Your task to perform on an android device: turn on the 12-hour format for clock Image 0: 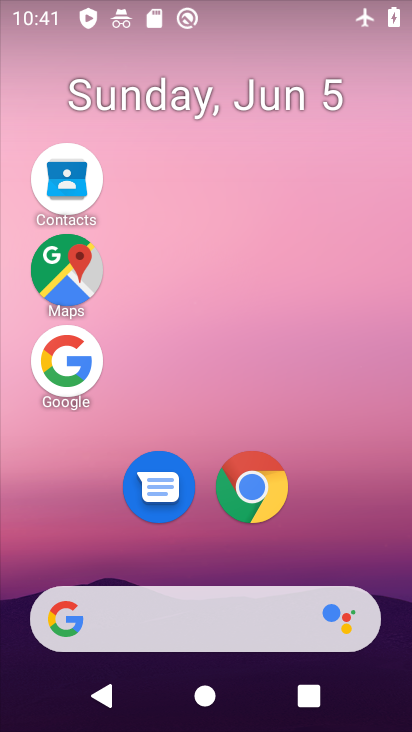
Step 0: drag from (236, 612) to (229, 1)
Your task to perform on an android device: turn on the 12-hour format for clock Image 1: 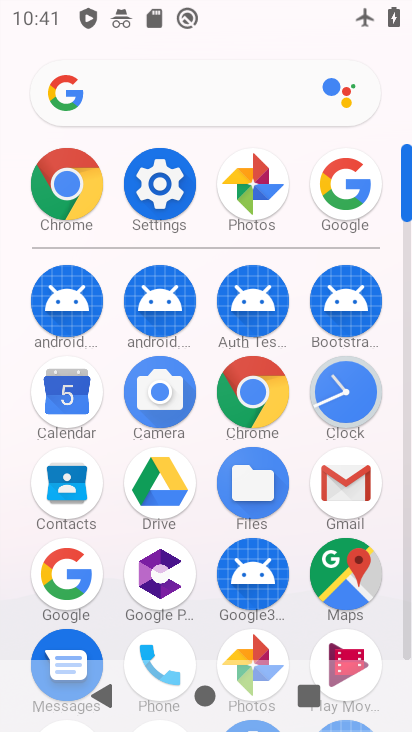
Step 1: click (364, 404)
Your task to perform on an android device: turn on the 12-hour format for clock Image 2: 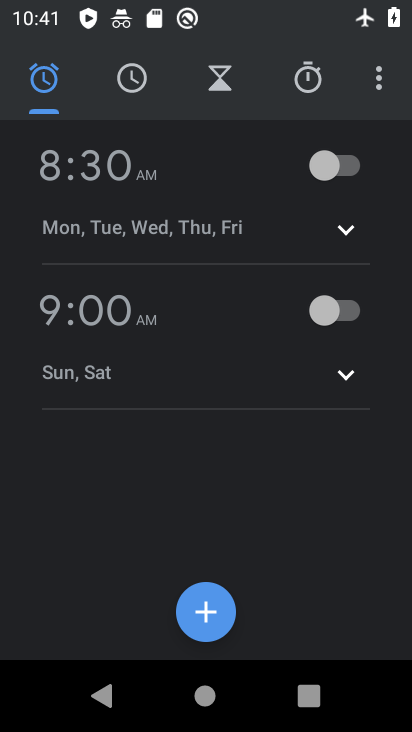
Step 2: click (381, 88)
Your task to perform on an android device: turn on the 12-hour format for clock Image 3: 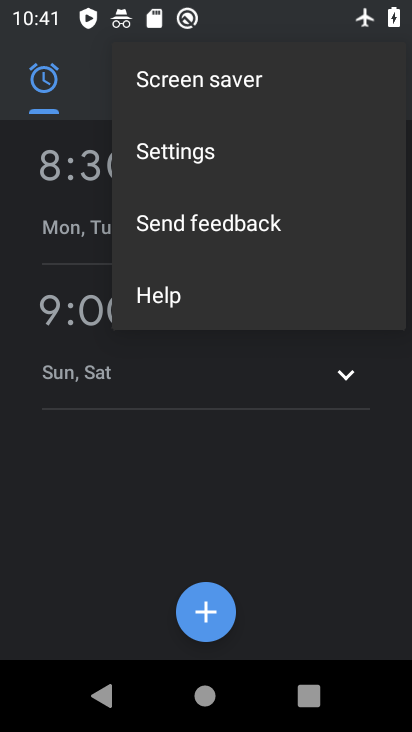
Step 3: click (195, 156)
Your task to perform on an android device: turn on the 12-hour format for clock Image 4: 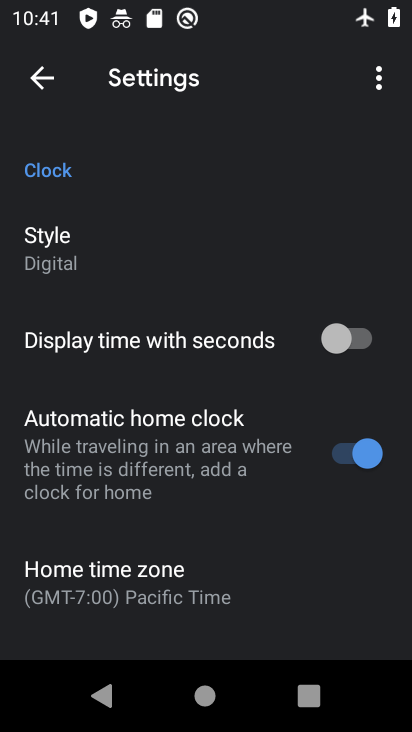
Step 4: drag from (155, 542) to (181, 122)
Your task to perform on an android device: turn on the 12-hour format for clock Image 5: 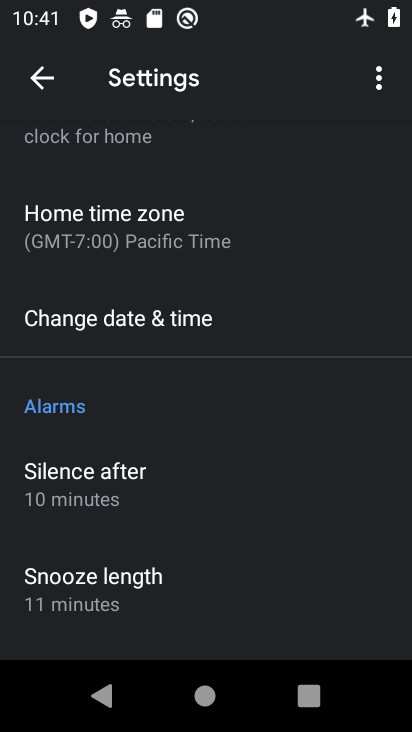
Step 5: click (193, 328)
Your task to perform on an android device: turn on the 12-hour format for clock Image 6: 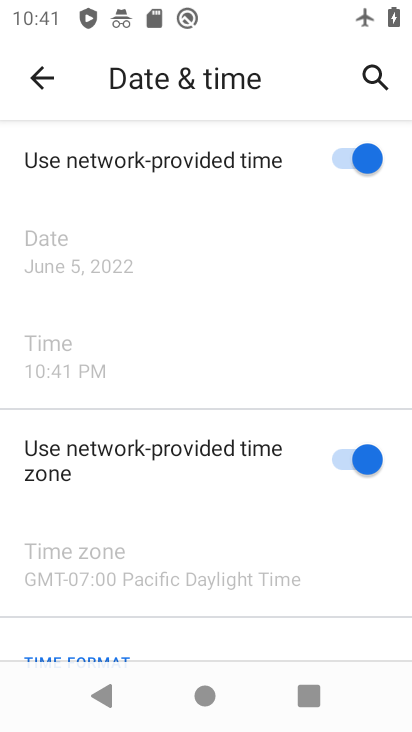
Step 6: task complete